Your task to perform on an android device: turn off priority inbox in the gmail app Image 0: 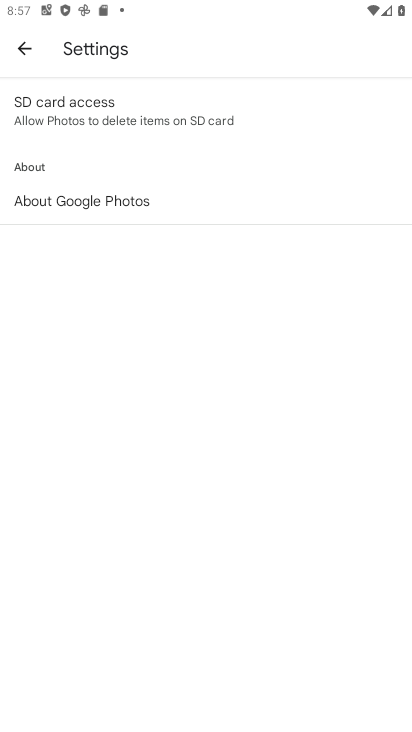
Step 0: press home button
Your task to perform on an android device: turn off priority inbox in the gmail app Image 1: 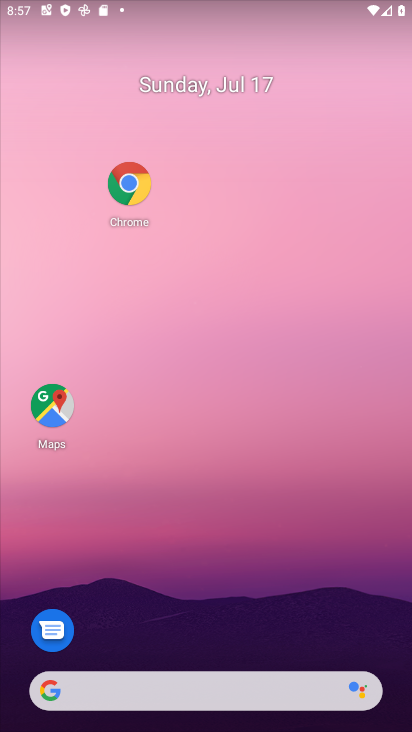
Step 1: drag from (252, 632) to (307, 185)
Your task to perform on an android device: turn off priority inbox in the gmail app Image 2: 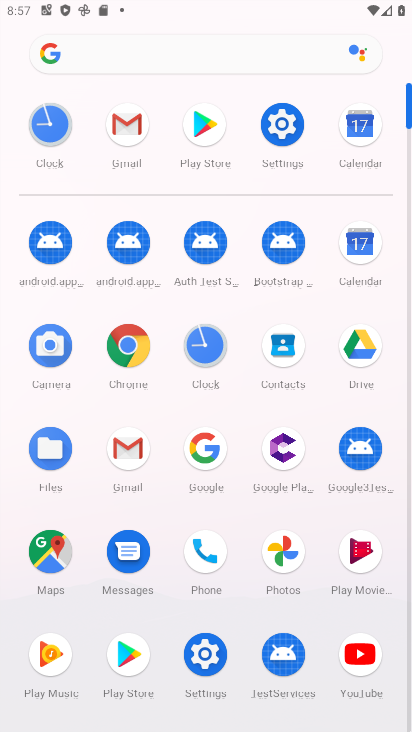
Step 2: click (120, 131)
Your task to perform on an android device: turn off priority inbox in the gmail app Image 3: 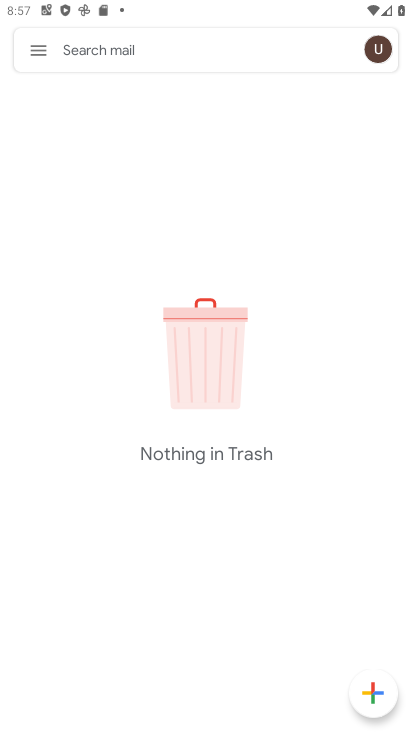
Step 3: click (38, 56)
Your task to perform on an android device: turn off priority inbox in the gmail app Image 4: 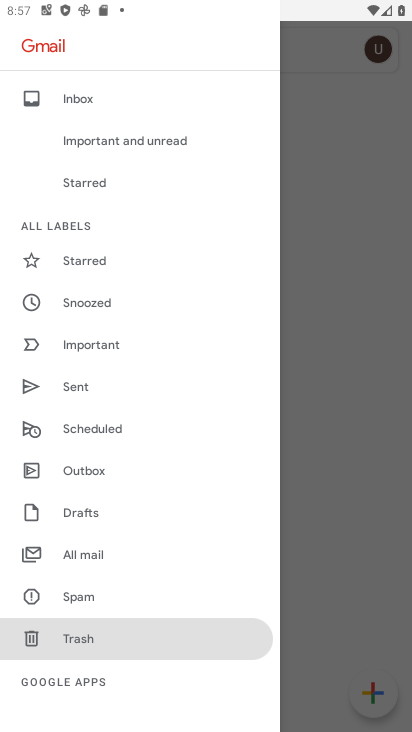
Step 4: drag from (181, 624) to (178, 94)
Your task to perform on an android device: turn off priority inbox in the gmail app Image 5: 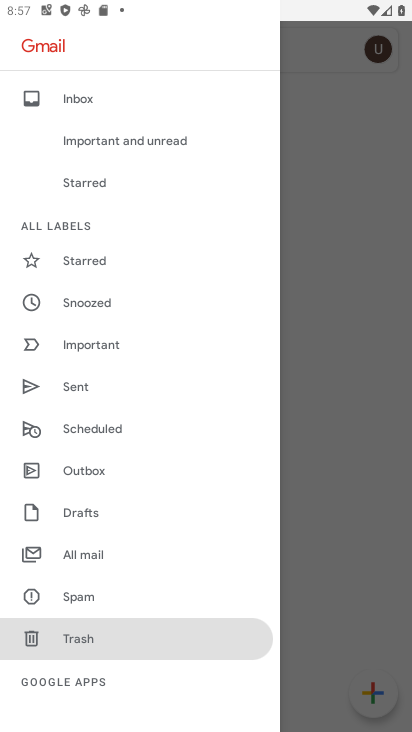
Step 5: drag from (125, 219) to (150, 20)
Your task to perform on an android device: turn off priority inbox in the gmail app Image 6: 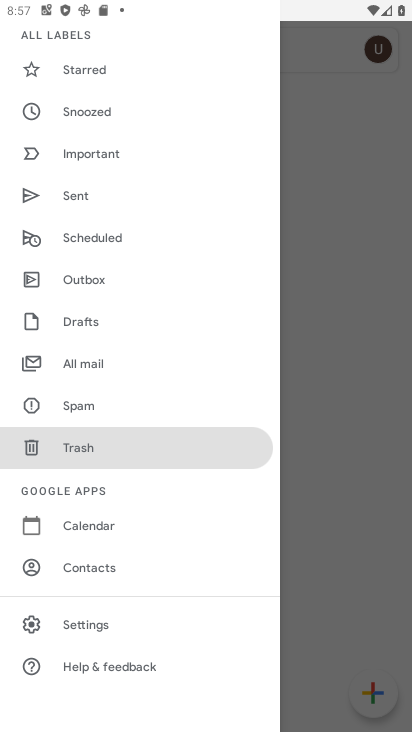
Step 6: click (93, 623)
Your task to perform on an android device: turn off priority inbox in the gmail app Image 7: 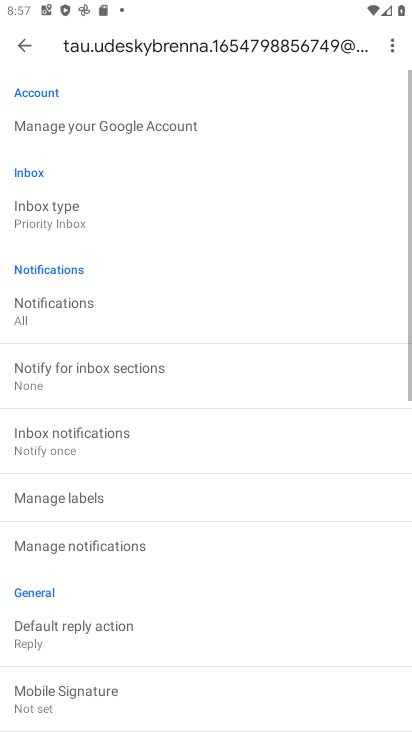
Step 7: click (67, 221)
Your task to perform on an android device: turn off priority inbox in the gmail app Image 8: 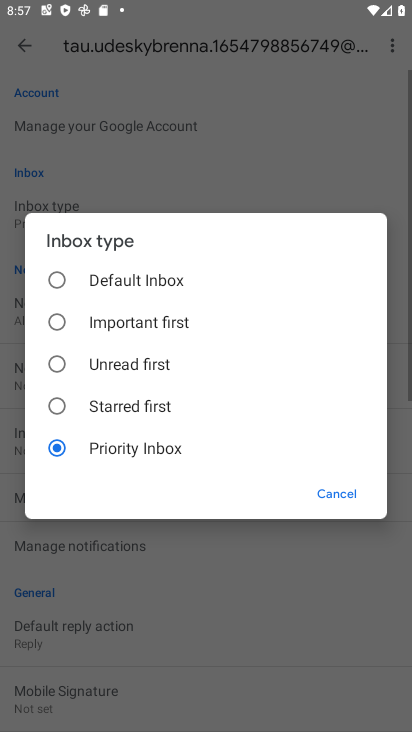
Step 8: click (143, 288)
Your task to perform on an android device: turn off priority inbox in the gmail app Image 9: 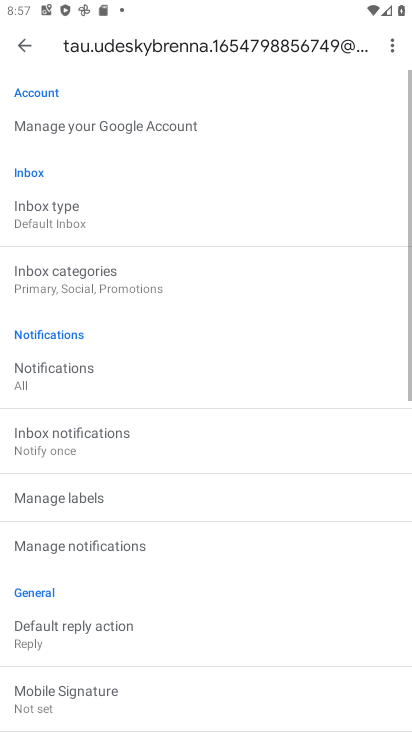
Step 9: task complete